Your task to perform on an android device: Set the phone to "Do not disturb". Image 0: 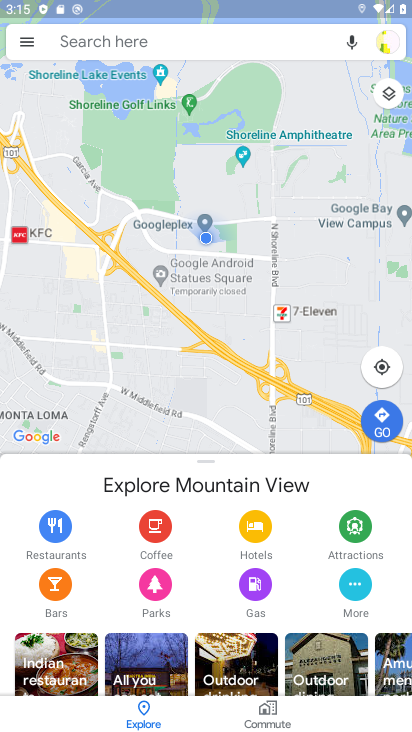
Step 0: press home button
Your task to perform on an android device: Set the phone to "Do not disturb". Image 1: 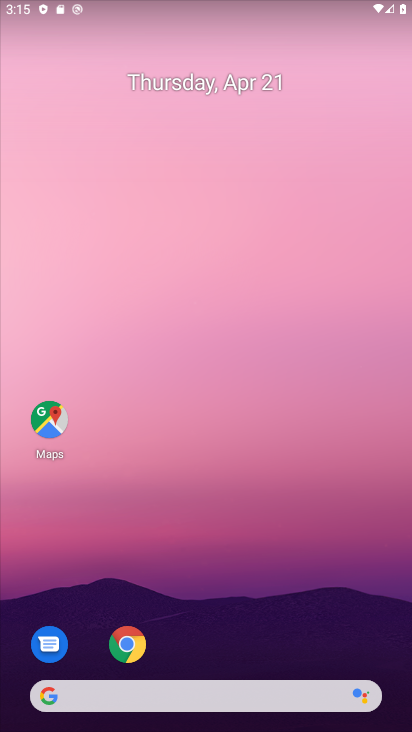
Step 1: drag from (287, 514) to (214, 35)
Your task to perform on an android device: Set the phone to "Do not disturb". Image 2: 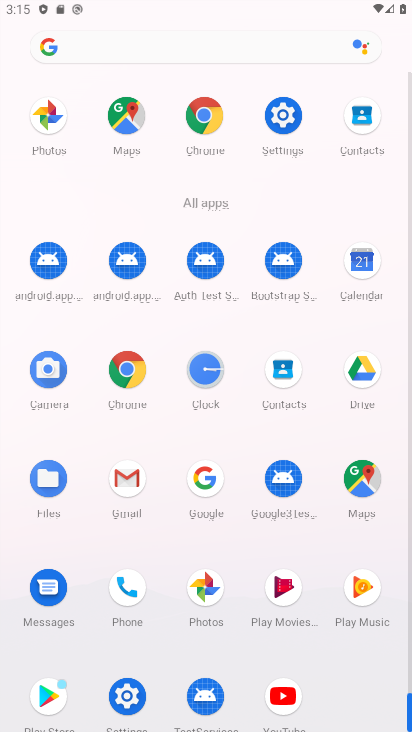
Step 2: click (289, 116)
Your task to perform on an android device: Set the phone to "Do not disturb". Image 3: 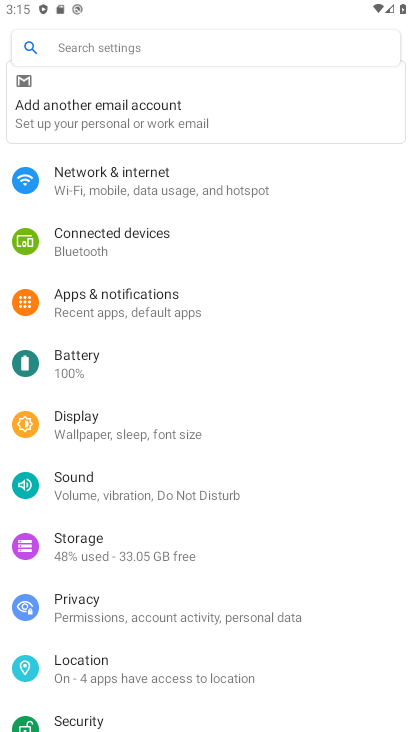
Step 3: click (74, 482)
Your task to perform on an android device: Set the phone to "Do not disturb". Image 4: 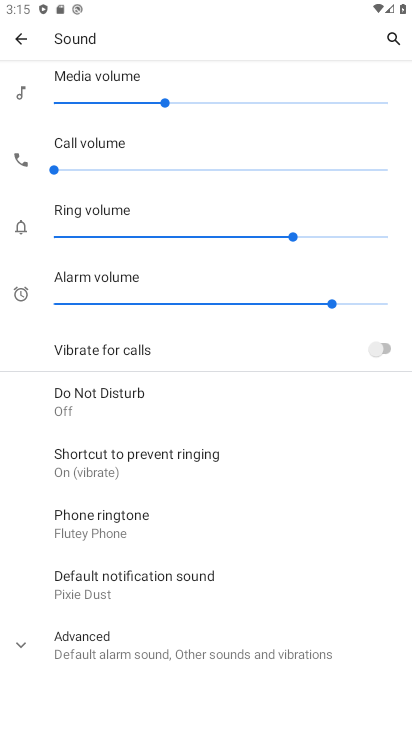
Step 4: click (141, 405)
Your task to perform on an android device: Set the phone to "Do not disturb". Image 5: 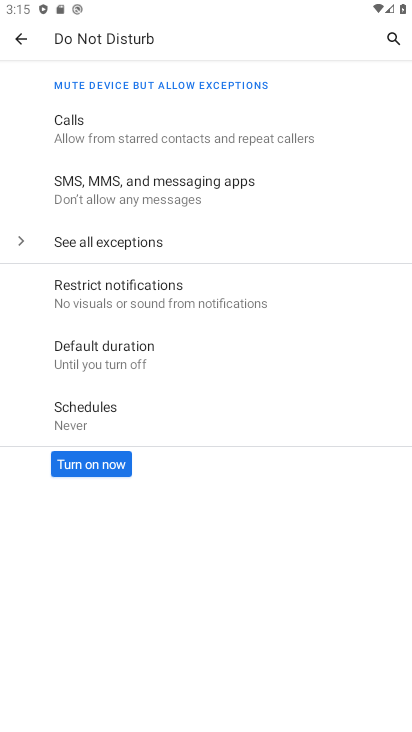
Step 5: click (106, 459)
Your task to perform on an android device: Set the phone to "Do not disturb". Image 6: 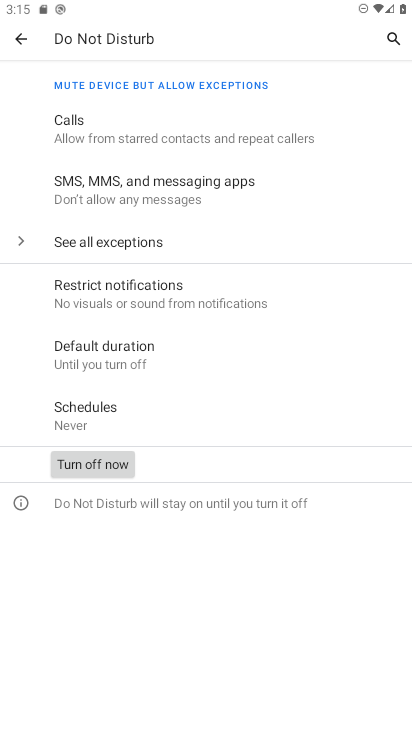
Step 6: task complete